Your task to perform on an android device: Check the weather Image 0: 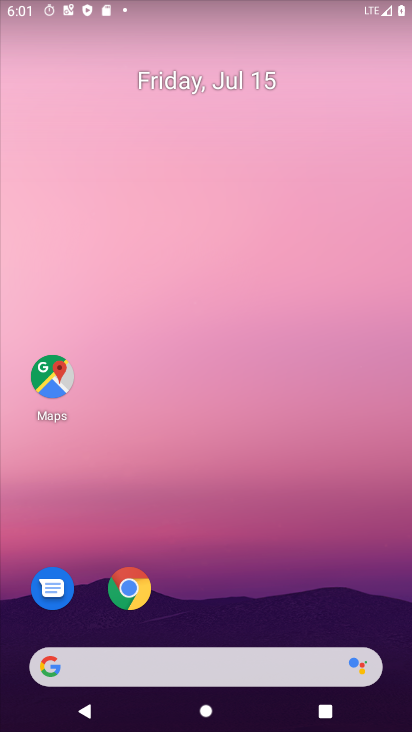
Step 0: drag from (275, 641) to (332, 10)
Your task to perform on an android device: Check the weather Image 1: 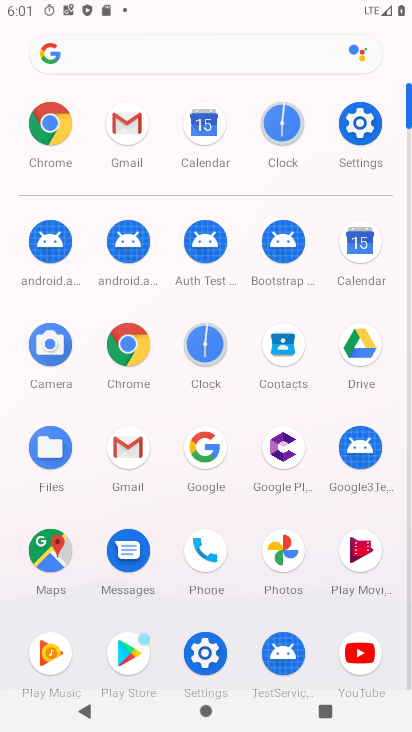
Step 1: click (128, 332)
Your task to perform on an android device: Check the weather Image 2: 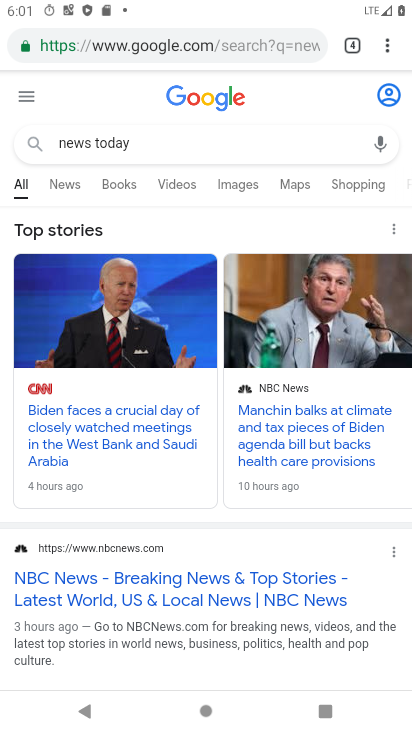
Step 2: click (150, 45)
Your task to perform on an android device: Check the weather Image 3: 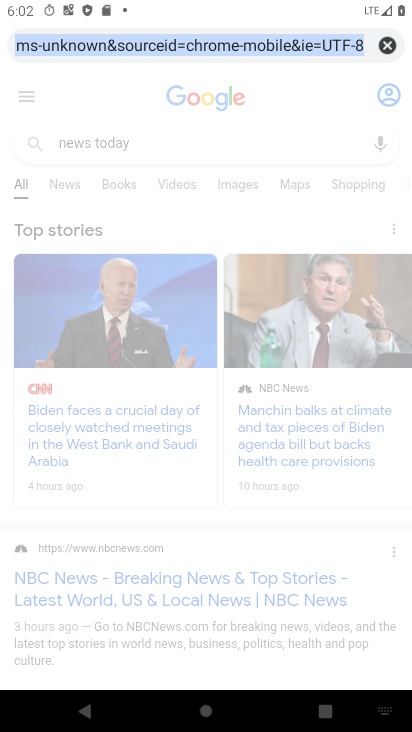
Step 3: type "check the weather"
Your task to perform on an android device: Check the weather Image 4: 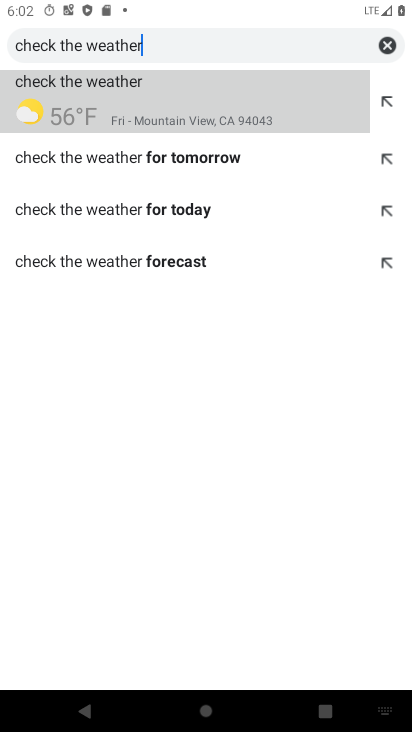
Step 4: click (63, 108)
Your task to perform on an android device: Check the weather Image 5: 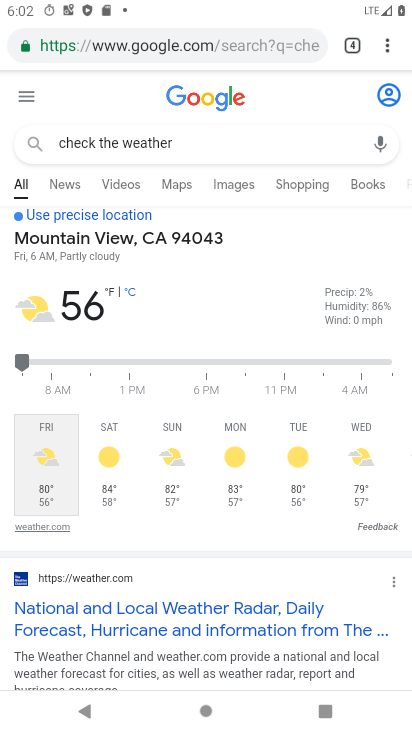
Step 5: task complete